Your task to perform on an android device: open a new tab in the chrome app Image 0: 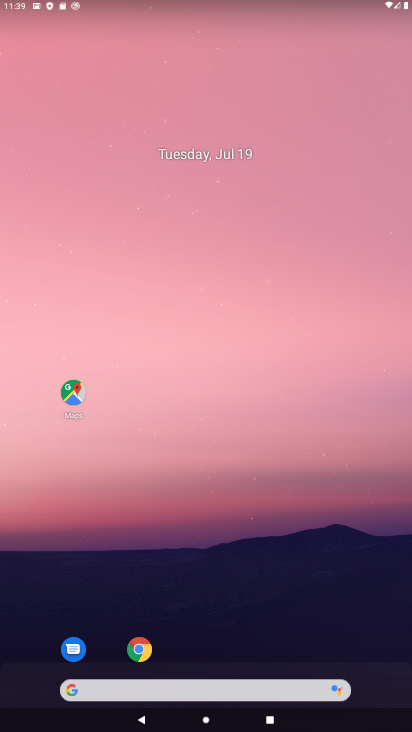
Step 0: drag from (189, 655) to (154, 28)
Your task to perform on an android device: open a new tab in the chrome app Image 1: 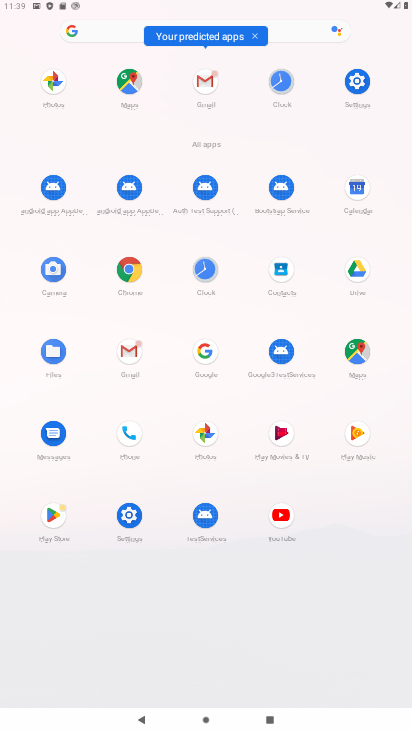
Step 1: click (134, 270)
Your task to perform on an android device: open a new tab in the chrome app Image 2: 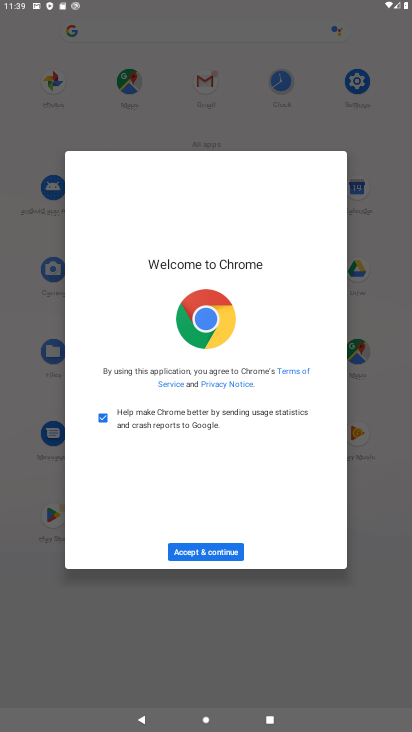
Step 2: click (208, 554)
Your task to perform on an android device: open a new tab in the chrome app Image 3: 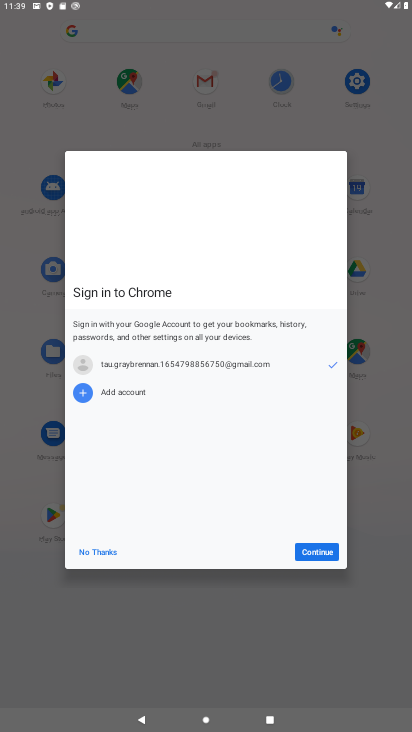
Step 3: click (328, 554)
Your task to perform on an android device: open a new tab in the chrome app Image 4: 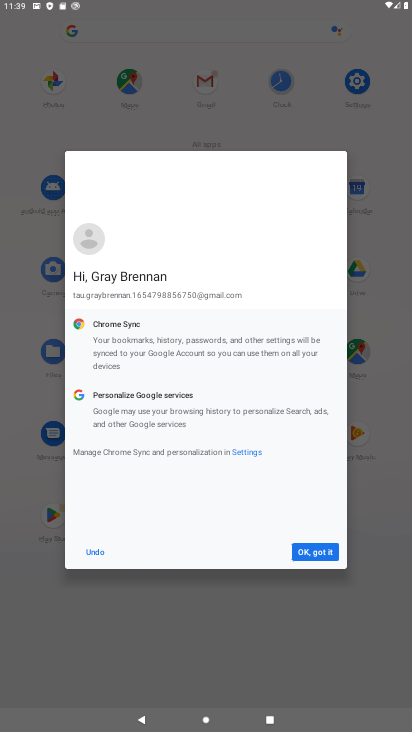
Step 4: click (328, 554)
Your task to perform on an android device: open a new tab in the chrome app Image 5: 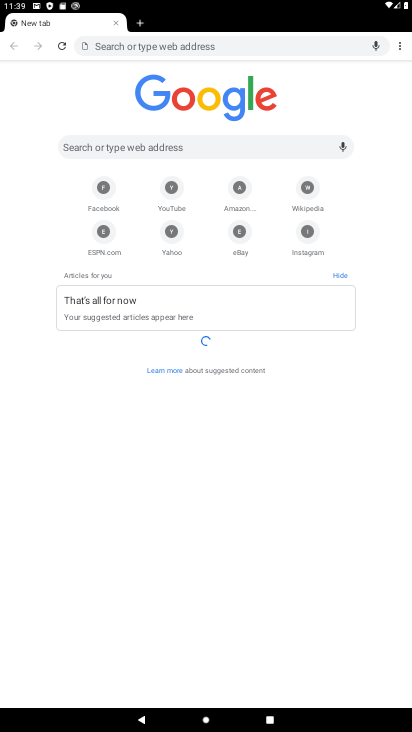
Step 5: click (138, 25)
Your task to perform on an android device: open a new tab in the chrome app Image 6: 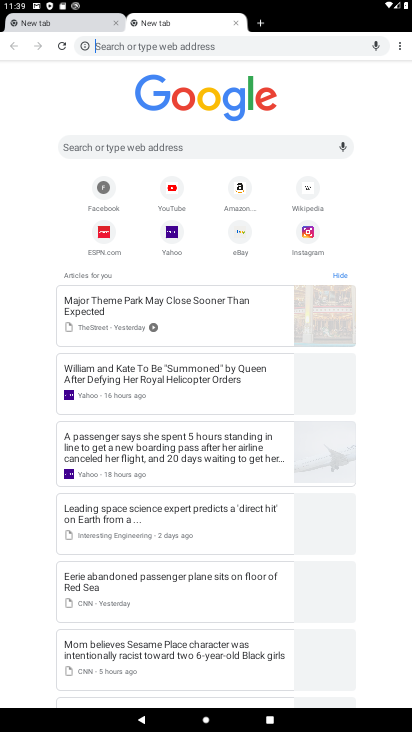
Step 6: task complete